Your task to perform on an android device: Is it going to rain tomorrow? Image 0: 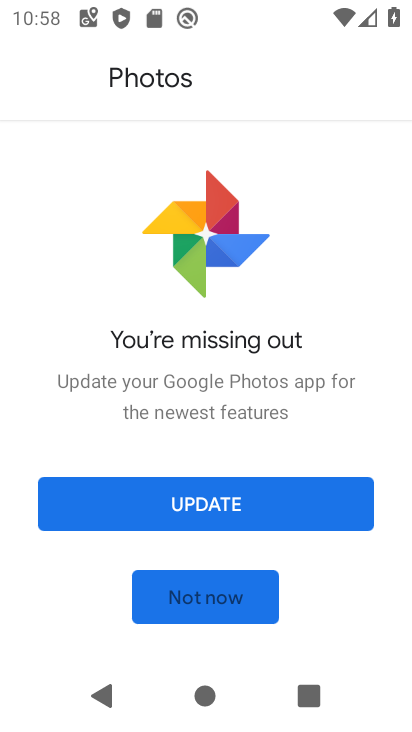
Step 0: press home button
Your task to perform on an android device: Is it going to rain tomorrow? Image 1: 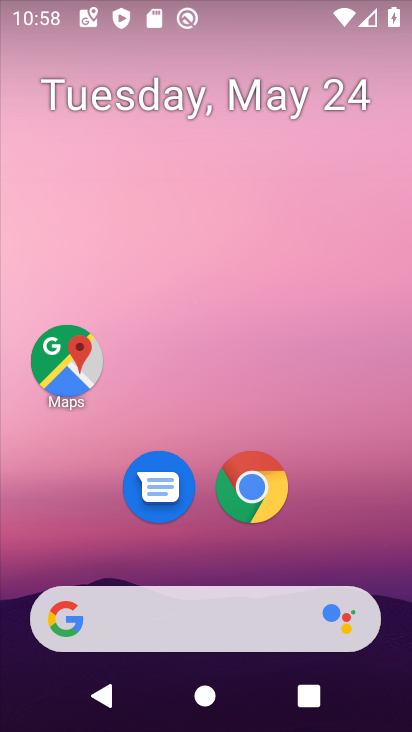
Step 1: click (158, 609)
Your task to perform on an android device: Is it going to rain tomorrow? Image 2: 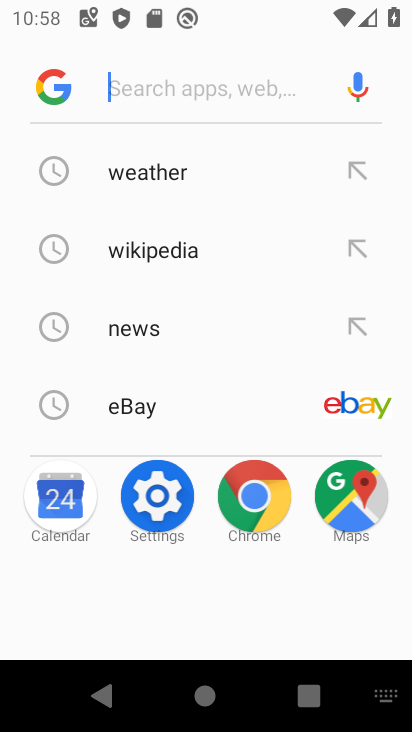
Step 2: click (163, 171)
Your task to perform on an android device: Is it going to rain tomorrow? Image 3: 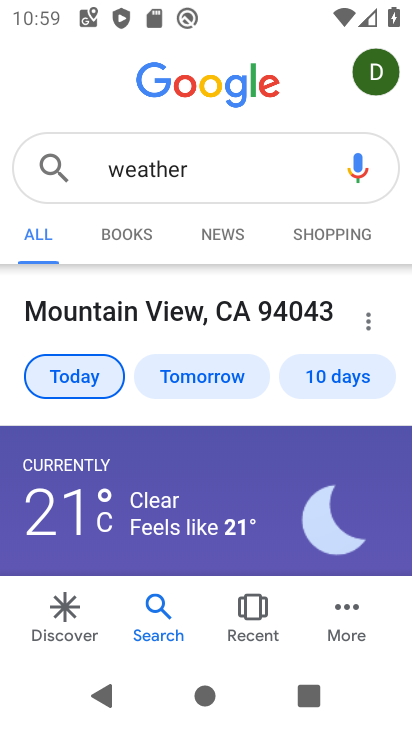
Step 3: click (210, 363)
Your task to perform on an android device: Is it going to rain tomorrow? Image 4: 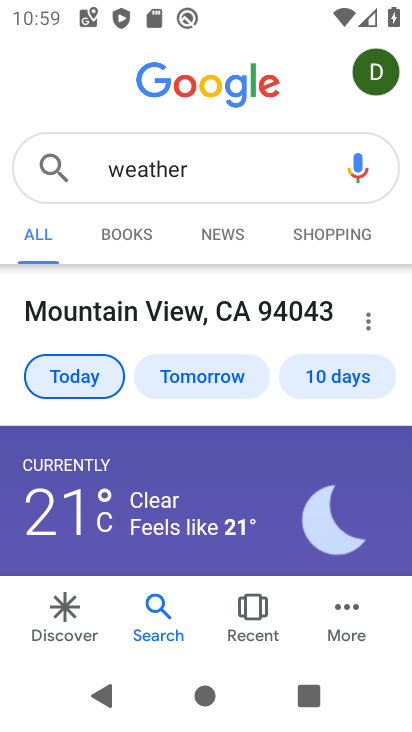
Step 4: click (208, 379)
Your task to perform on an android device: Is it going to rain tomorrow? Image 5: 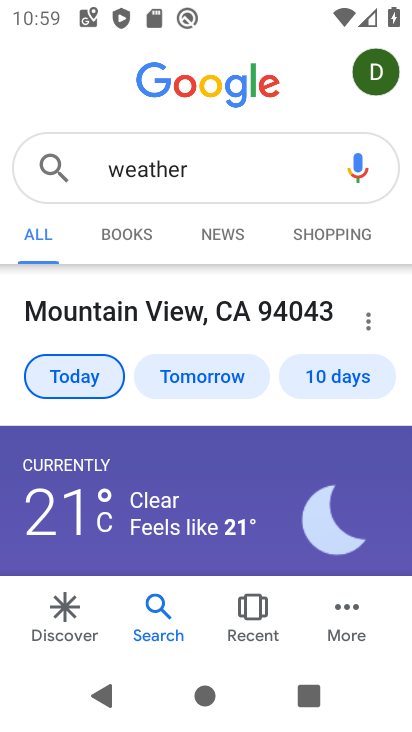
Step 5: click (215, 378)
Your task to perform on an android device: Is it going to rain tomorrow? Image 6: 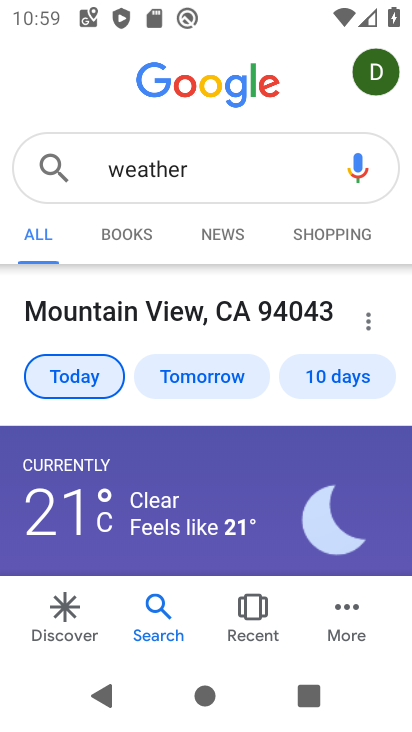
Step 6: task complete